Your task to perform on an android device: What's the weather? Image 0: 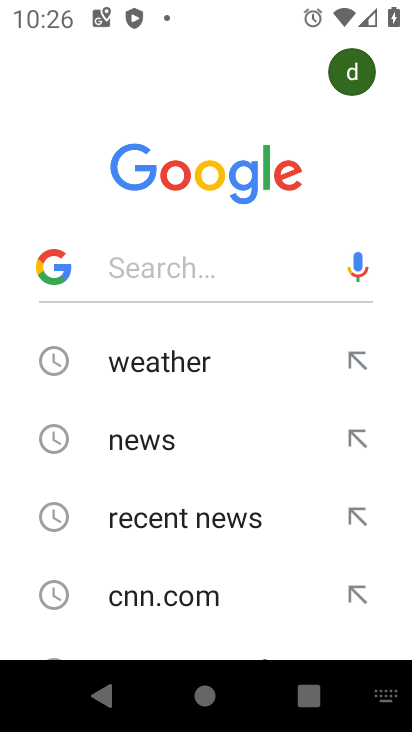
Step 0: press home button
Your task to perform on an android device: What's the weather? Image 1: 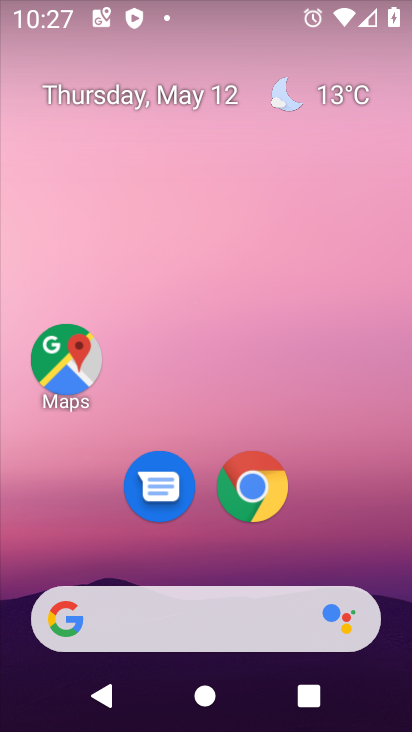
Step 1: click (258, 493)
Your task to perform on an android device: What's the weather? Image 2: 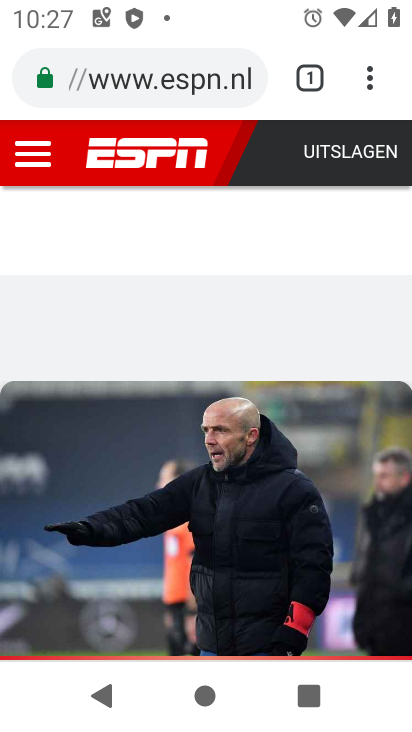
Step 2: press home button
Your task to perform on an android device: What's the weather? Image 3: 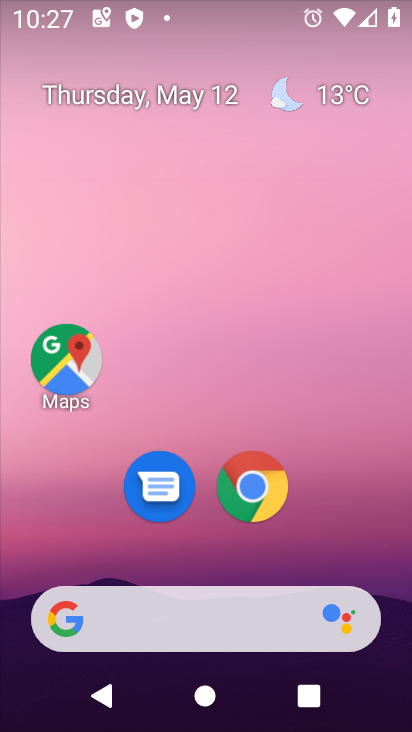
Step 3: click (334, 99)
Your task to perform on an android device: What's the weather? Image 4: 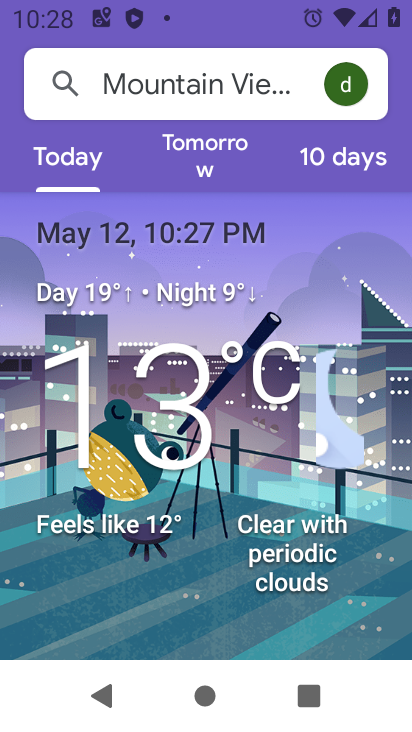
Step 4: task complete